Your task to perform on an android device: Open battery settings Image 0: 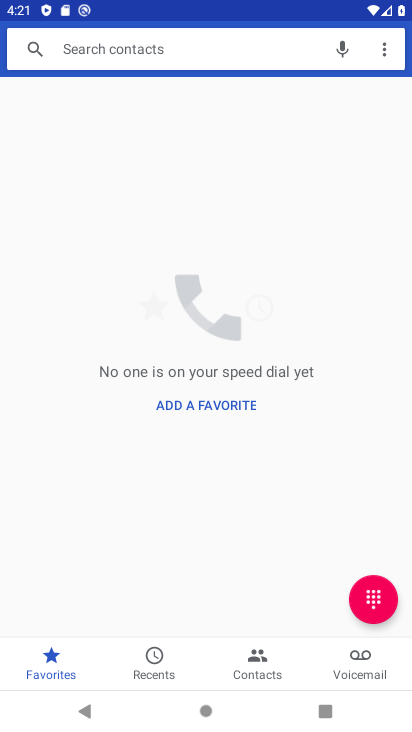
Step 0: press home button
Your task to perform on an android device: Open battery settings Image 1: 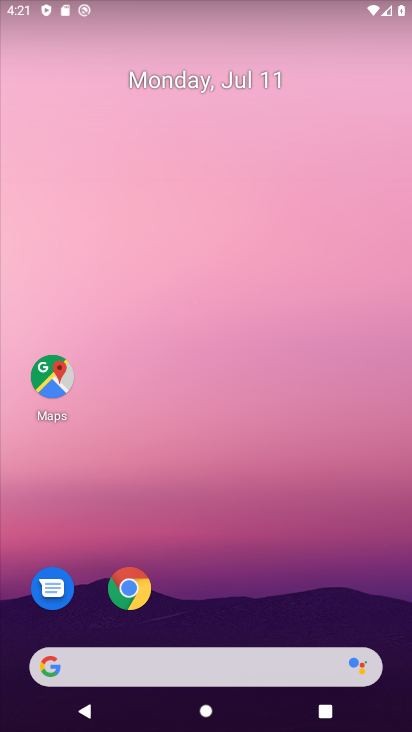
Step 1: drag from (6, 717) to (394, 322)
Your task to perform on an android device: Open battery settings Image 2: 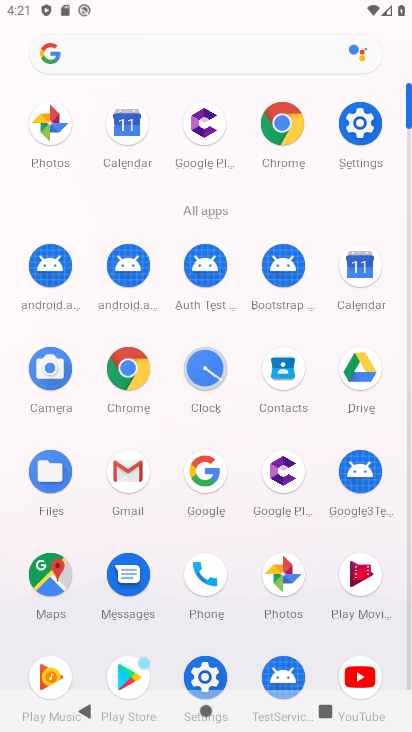
Step 2: click (203, 676)
Your task to perform on an android device: Open battery settings Image 3: 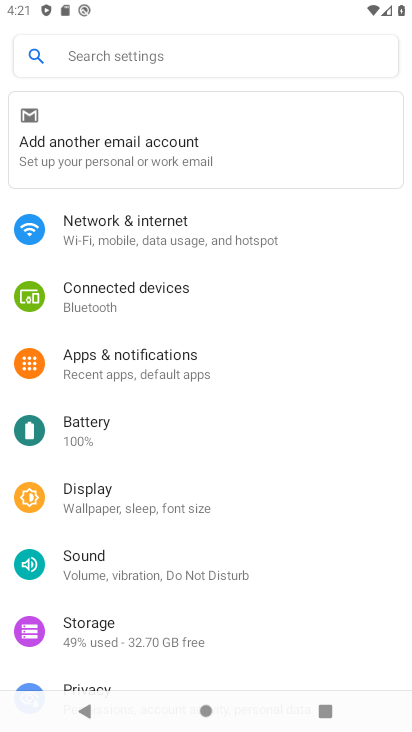
Step 3: click (72, 422)
Your task to perform on an android device: Open battery settings Image 4: 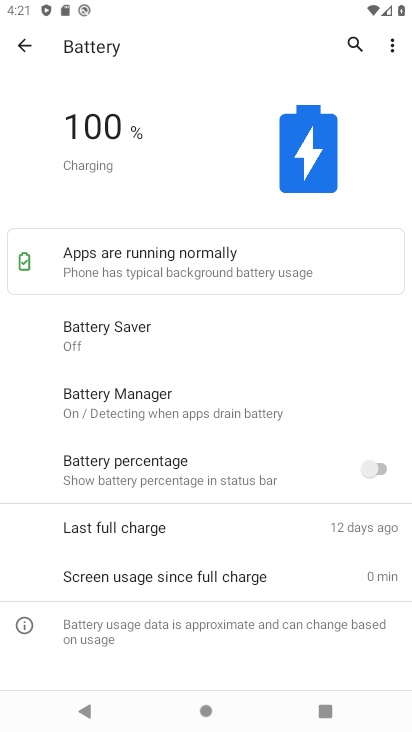
Step 4: task complete